Your task to perform on an android device: open app "Indeed Job Search" (install if not already installed), go to login, and select forgot password Image 0: 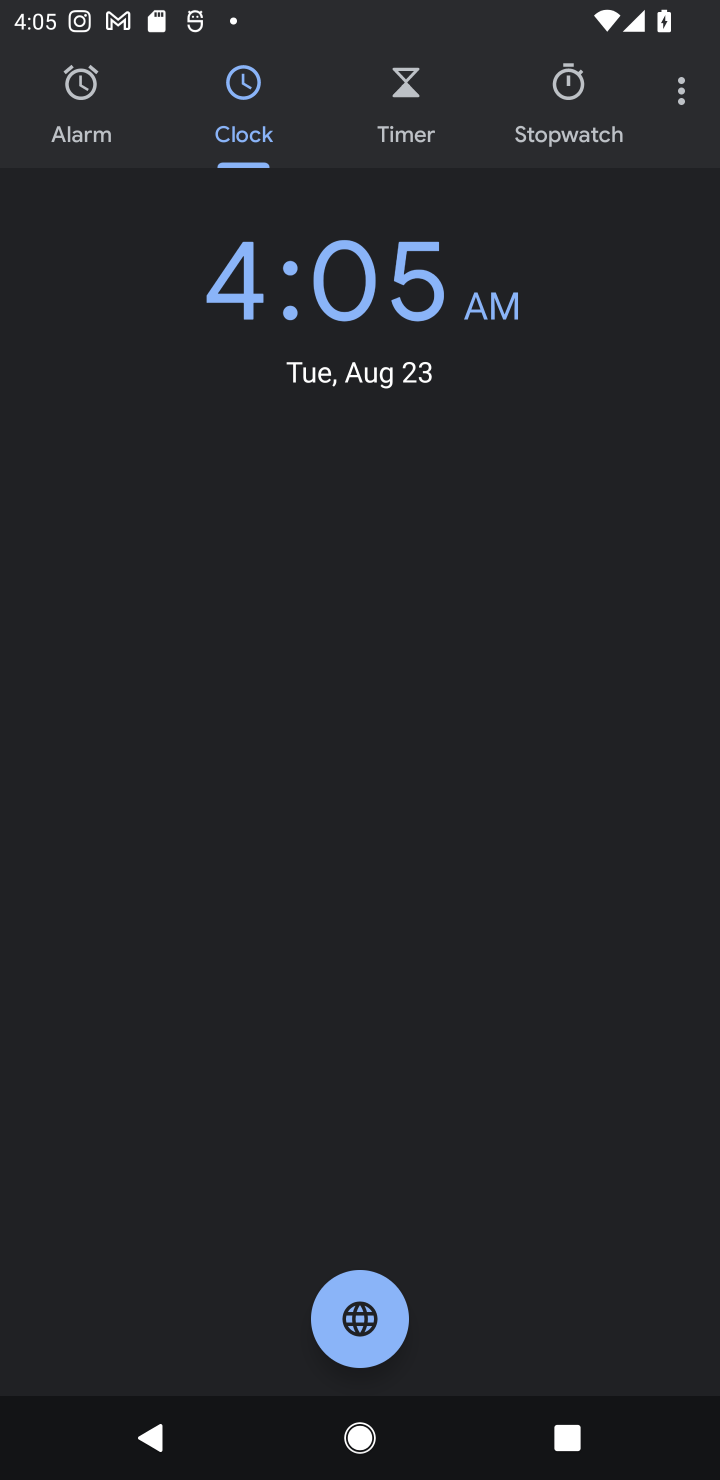
Step 0: press home button
Your task to perform on an android device: open app "Indeed Job Search" (install if not already installed), go to login, and select forgot password Image 1: 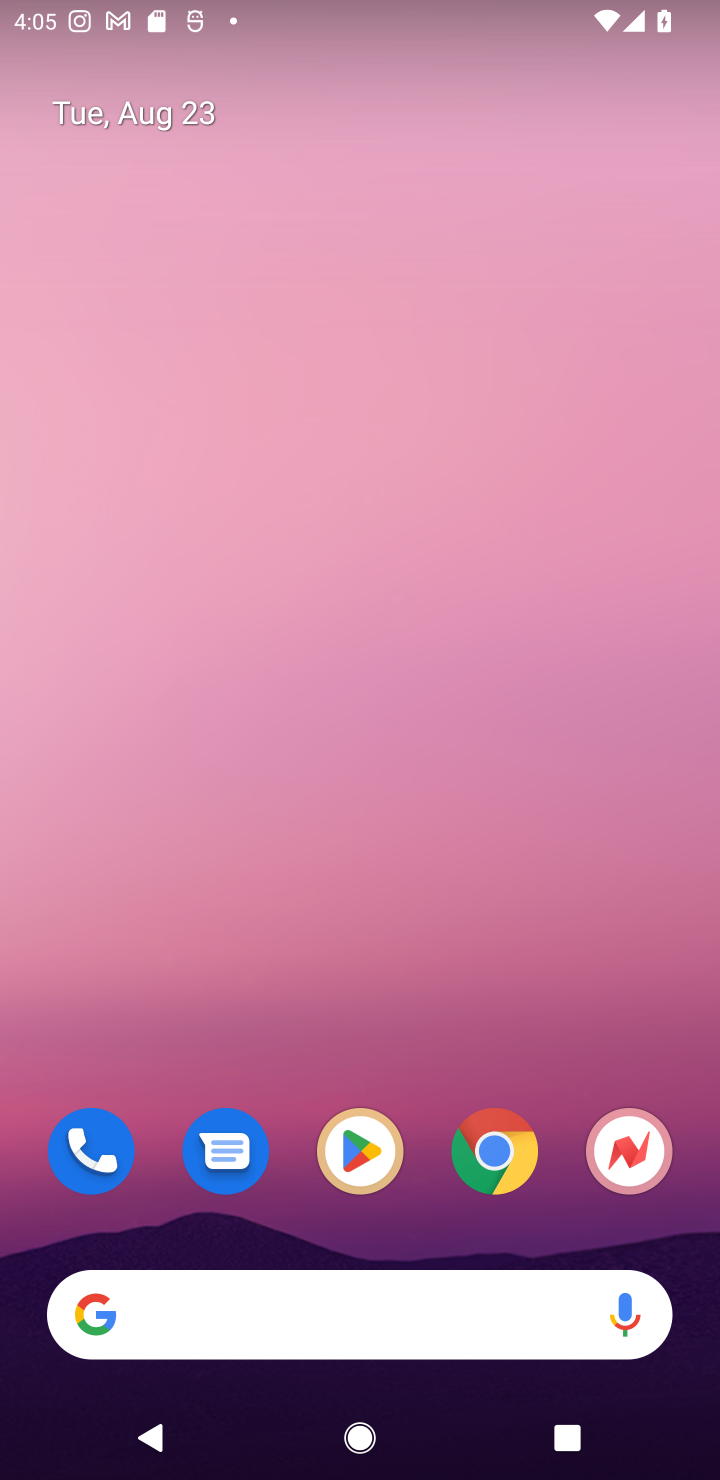
Step 1: click (358, 1152)
Your task to perform on an android device: open app "Indeed Job Search" (install if not already installed), go to login, and select forgot password Image 2: 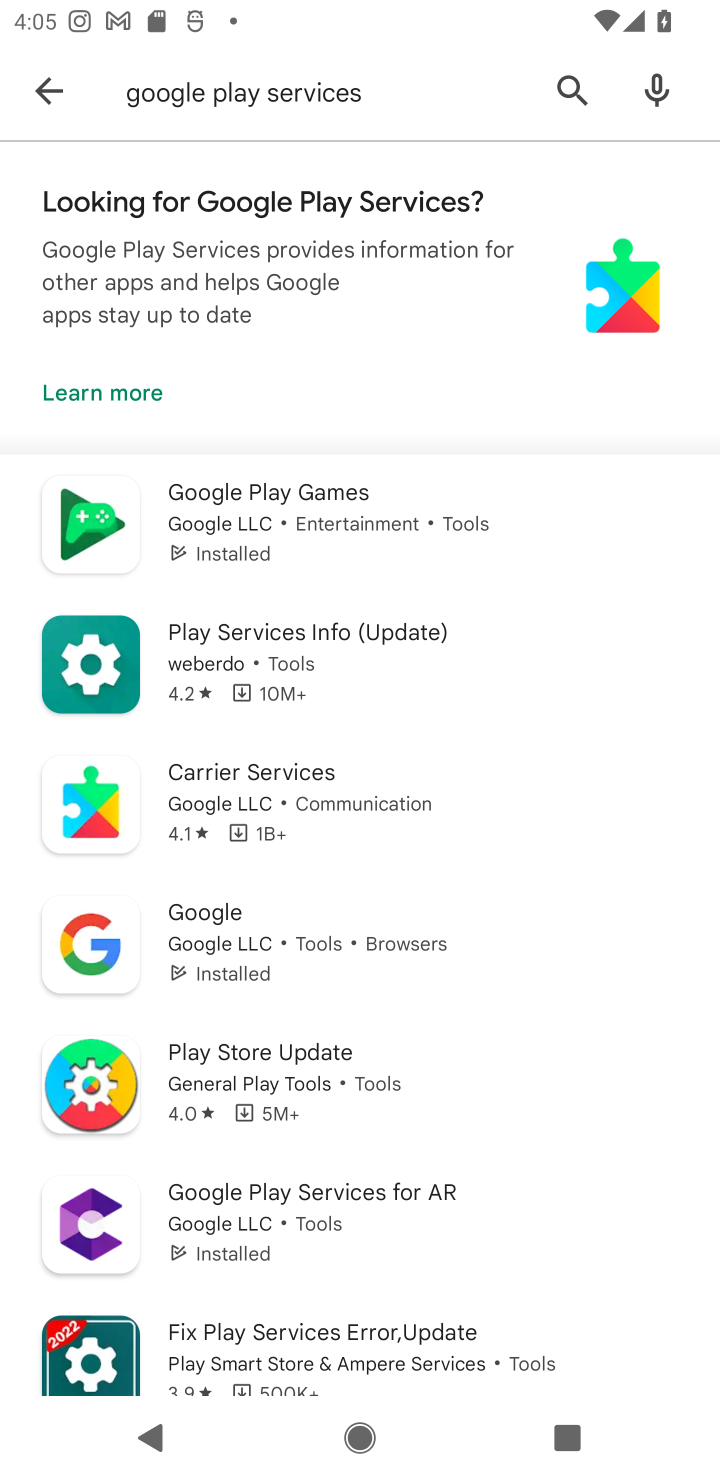
Step 2: click (572, 84)
Your task to perform on an android device: open app "Indeed Job Search" (install if not already installed), go to login, and select forgot password Image 3: 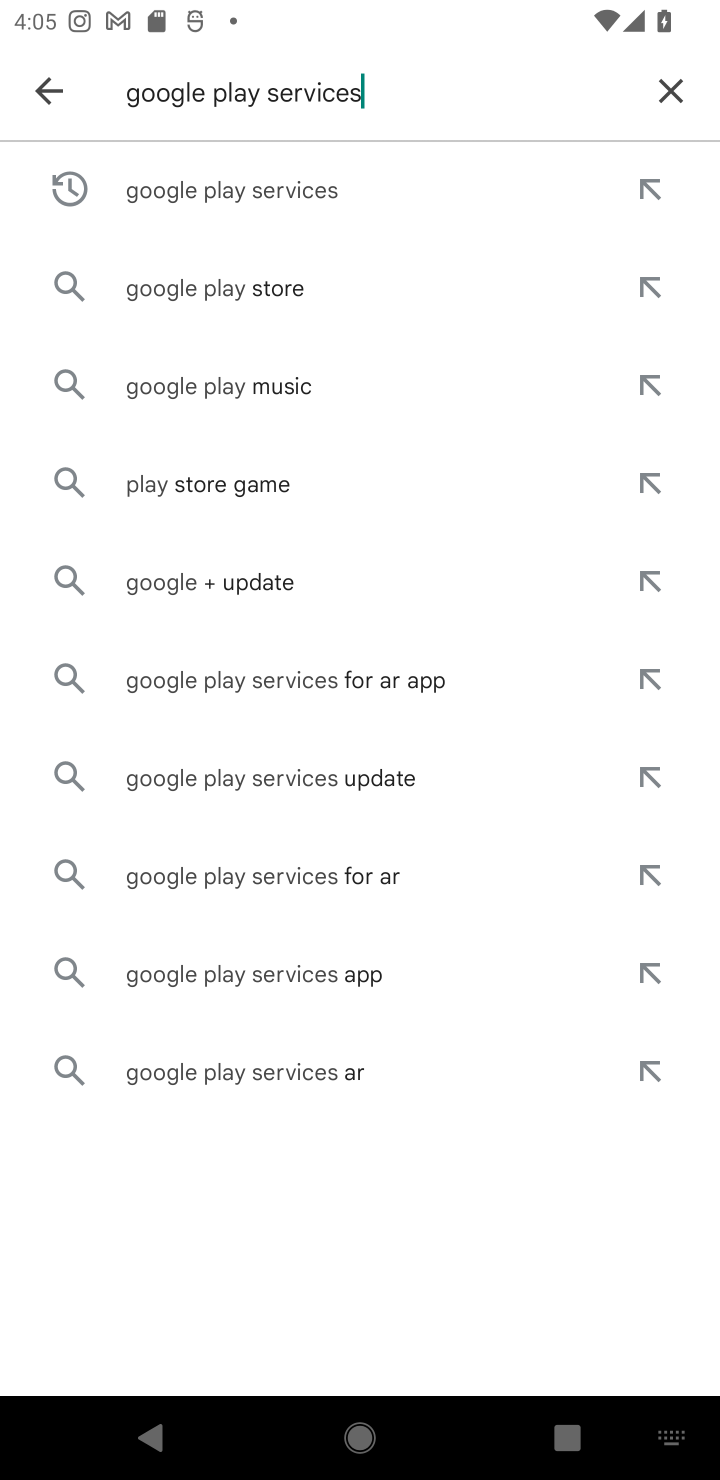
Step 3: click (673, 74)
Your task to perform on an android device: open app "Indeed Job Search" (install if not already installed), go to login, and select forgot password Image 4: 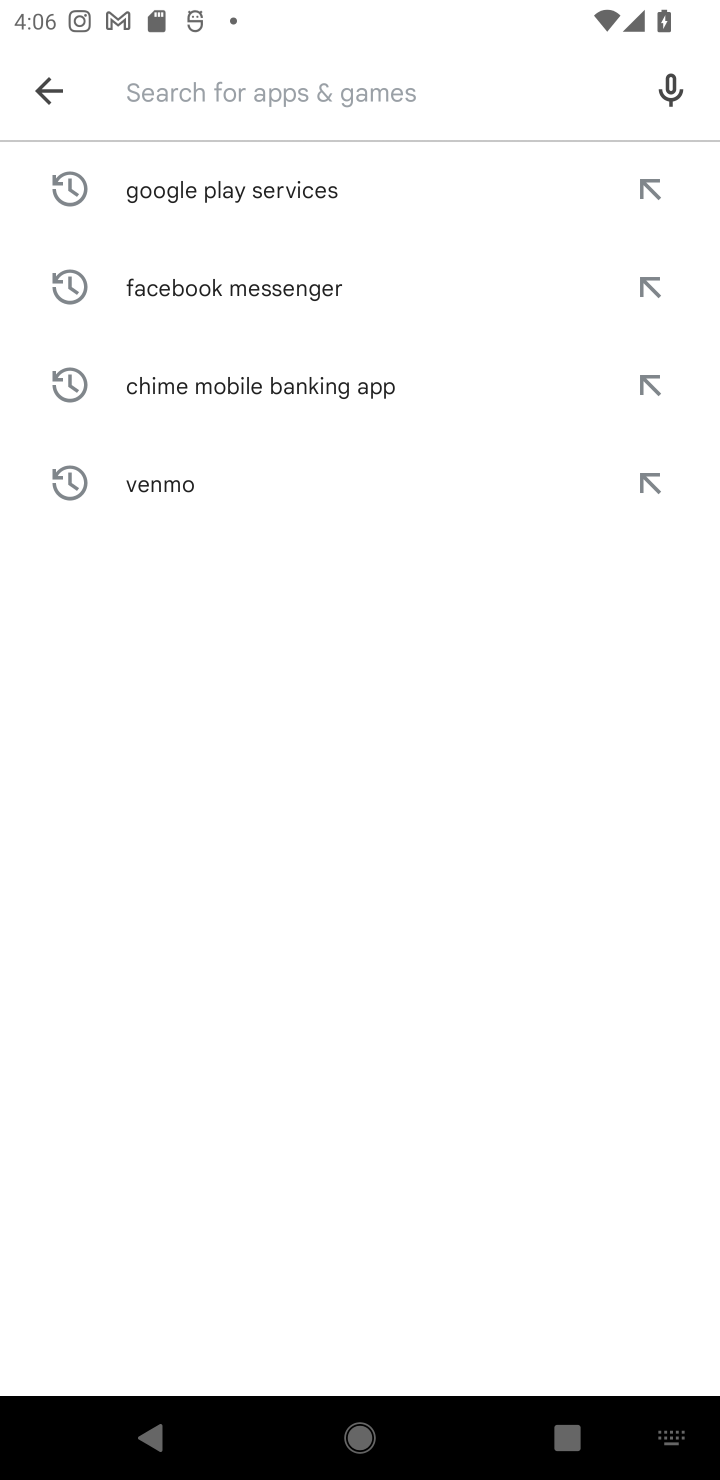
Step 4: type "Indeed Job Search"
Your task to perform on an android device: open app "Indeed Job Search" (install if not already installed), go to login, and select forgot password Image 5: 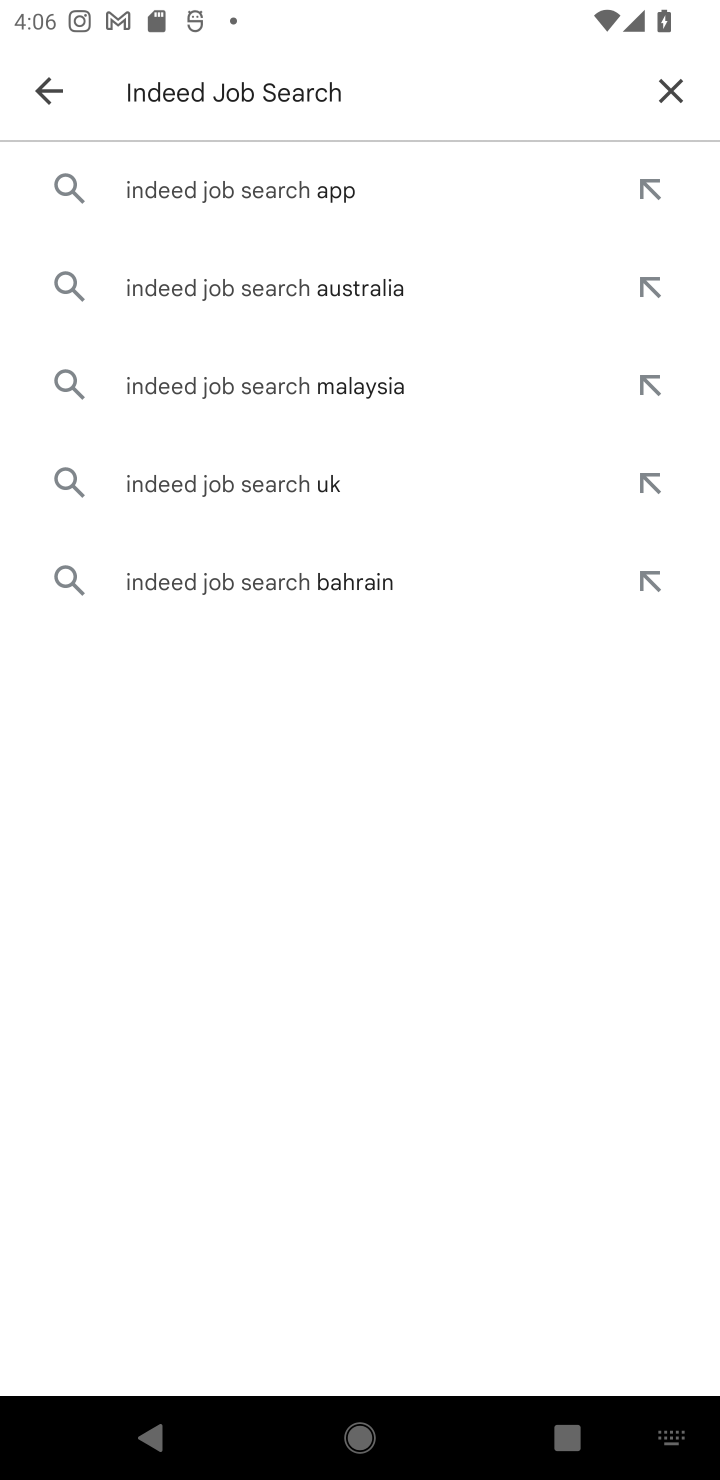
Step 5: click (313, 190)
Your task to perform on an android device: open app "Indeed Job Search" (install if not already installed), go to login, and select forgot password Image 6: 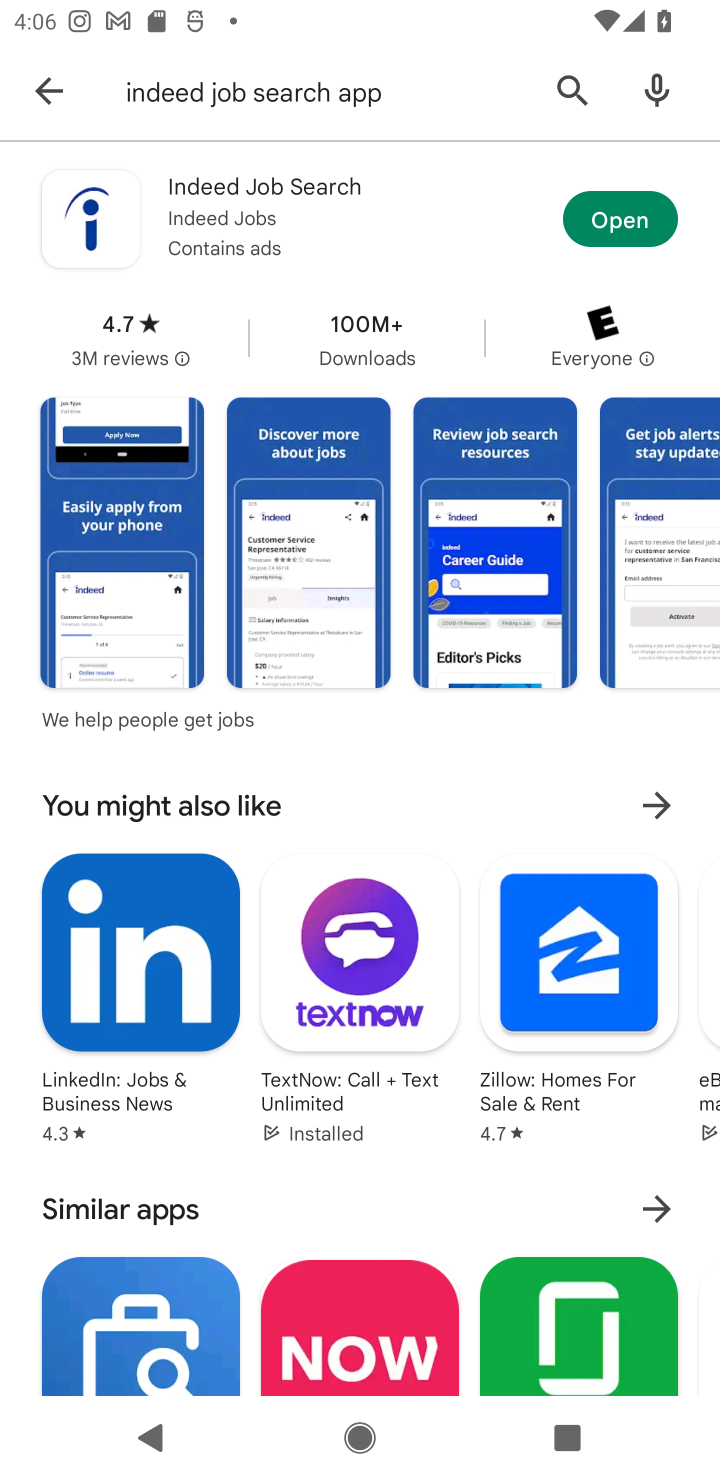
Step 6: click (626, 208)
Your task to perform on an android device: open app "Indeed Job Search" (install if not already installed), go to login, and select forgot password Image 7: 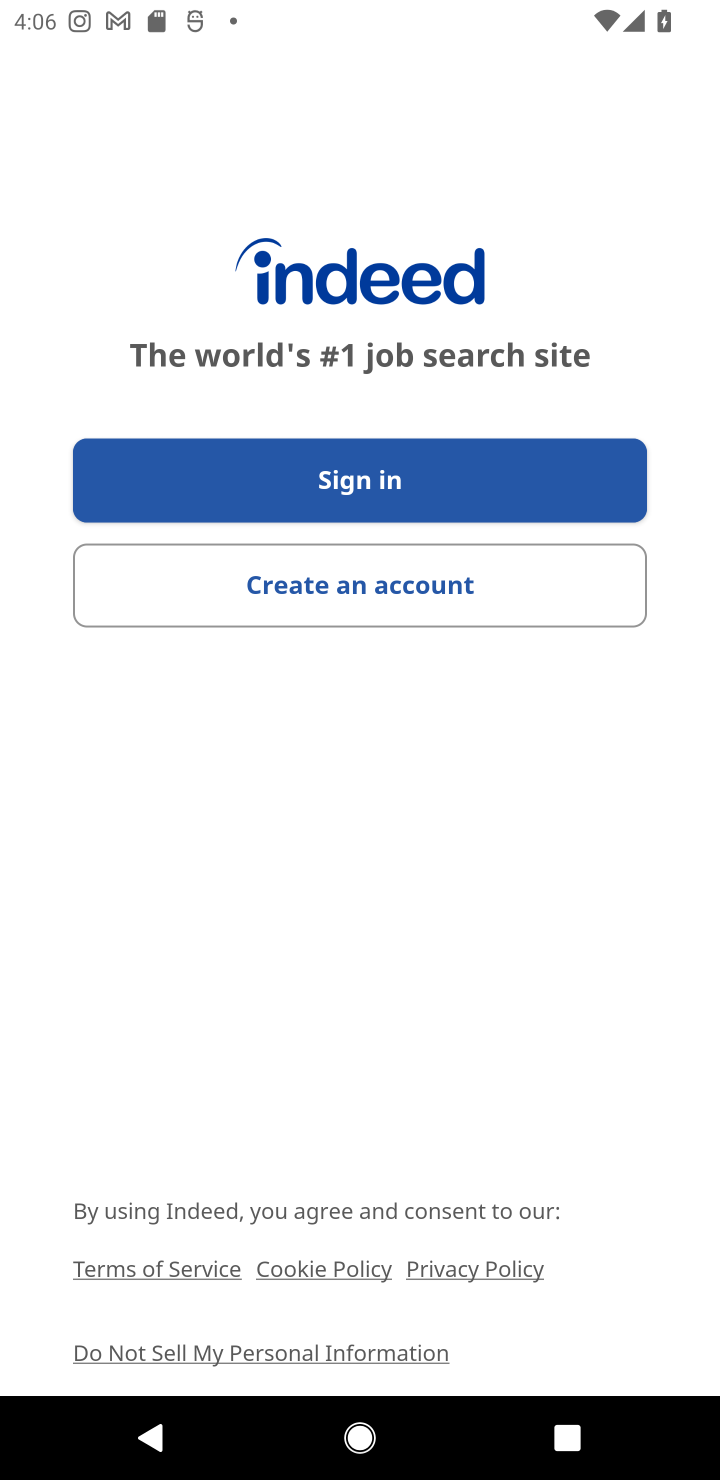
Step 7: click (437, 472)
Your task to perform on an android device: open app "Indeed Job Search" (install if not already installed), go to login, and select forgot password Image 8: 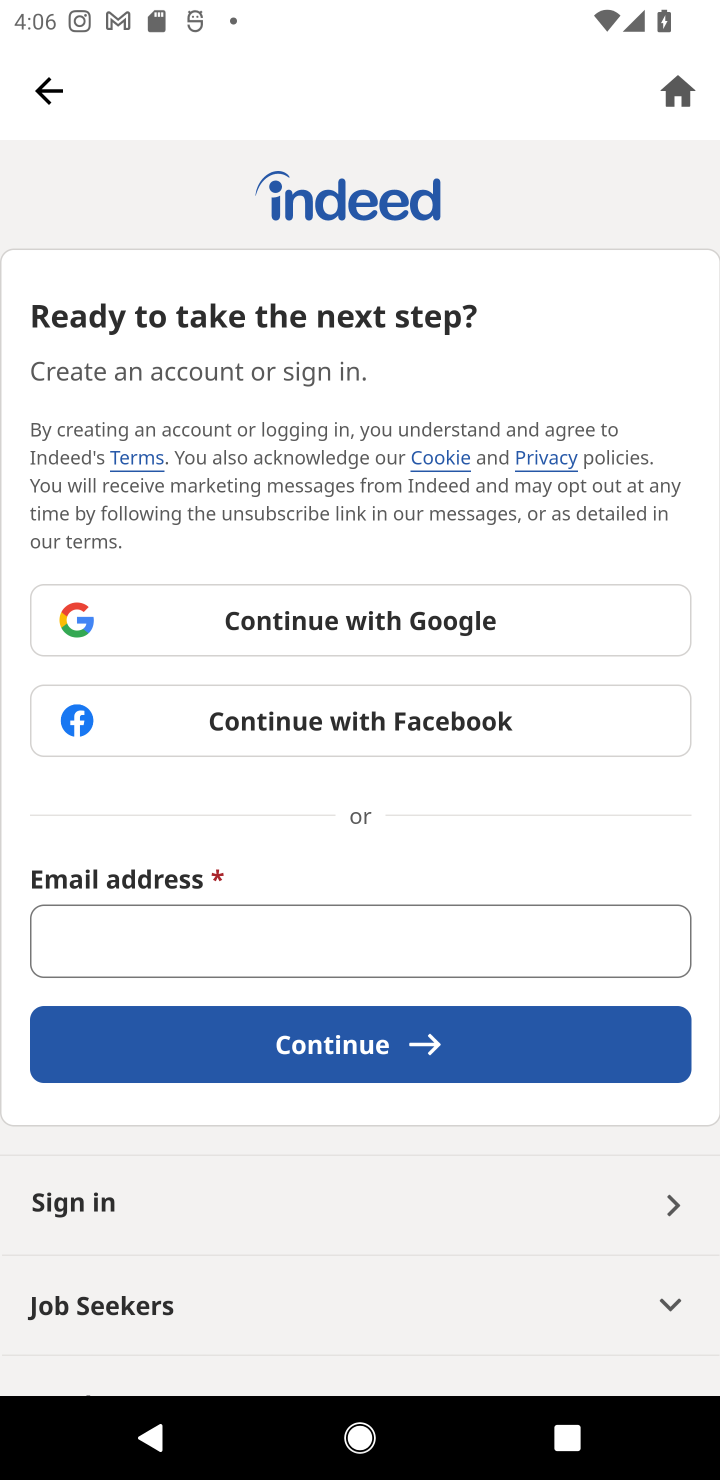
Step 8: task complete